Your task to perform on an android device: delete location history Image 0: 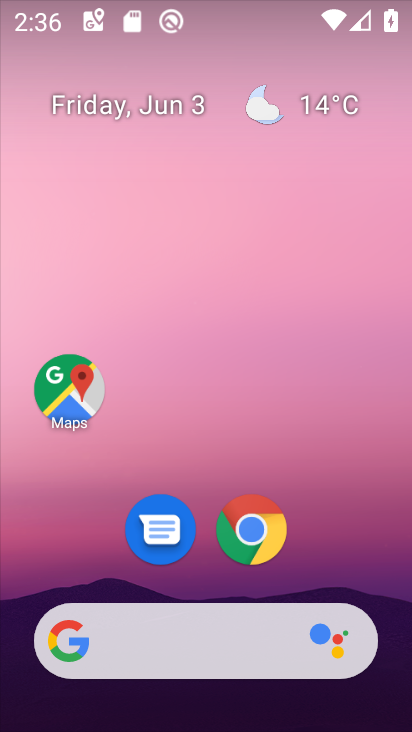
Step 0: drag from (312, 694) to (217, 139)
Your task to perform on an android device: delete location history Image 1: 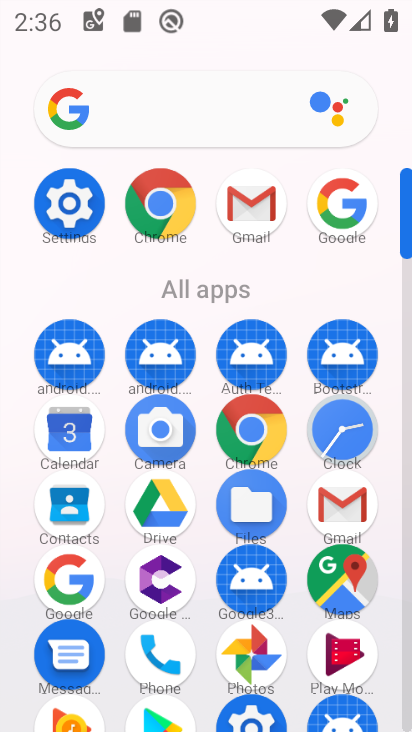
Step 1: click (74, 211)
Your task to perform on an android device: delete location history Image 2: 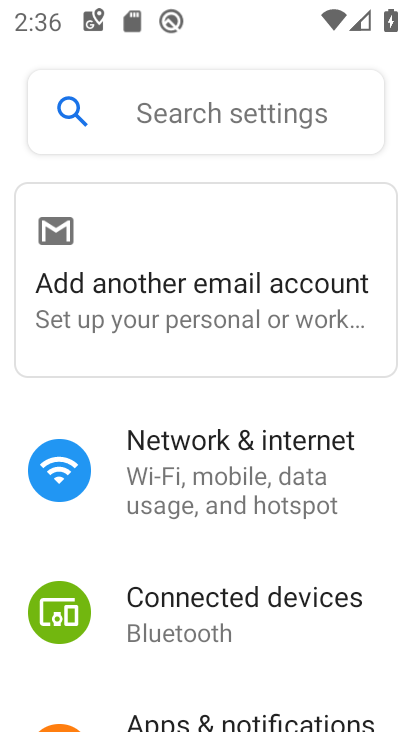
Step 2: drag from (226, 566) to (194, 233)
Your task to perform on an android device: delete location history Image 3: 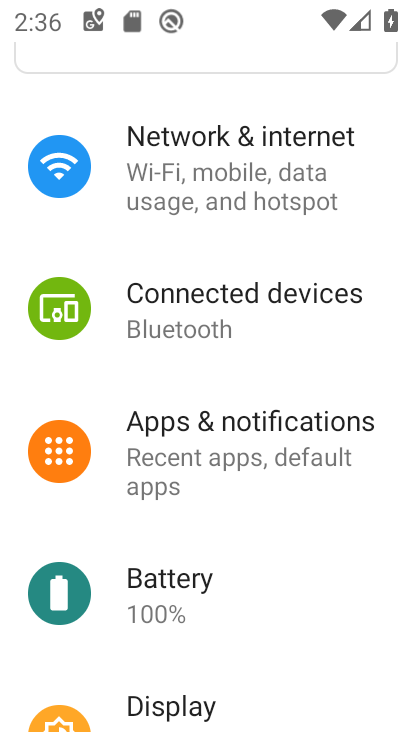
Step 3: drag from (213, 422) to (207, 246)
Your task to perform on an android device: delete location history Image 4: 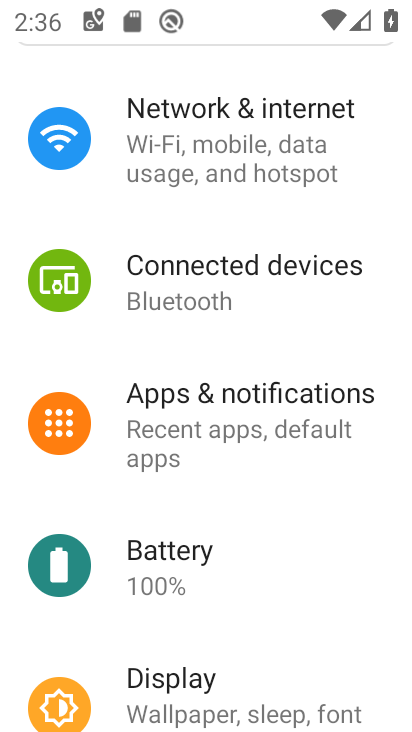
Step 4: drag from (206, 568) to (208, 256)
Your task to perform on an android device: delete location history Image 5: 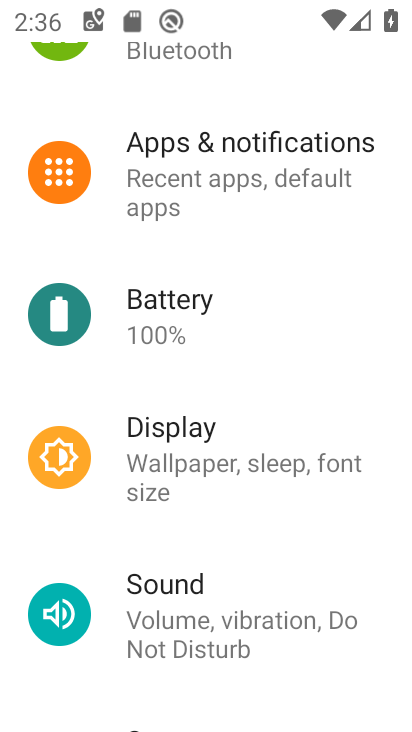
Step 5: drag from (207, 514) to (212, 257)
Your task to perform on an android device: delete location history Image 6: 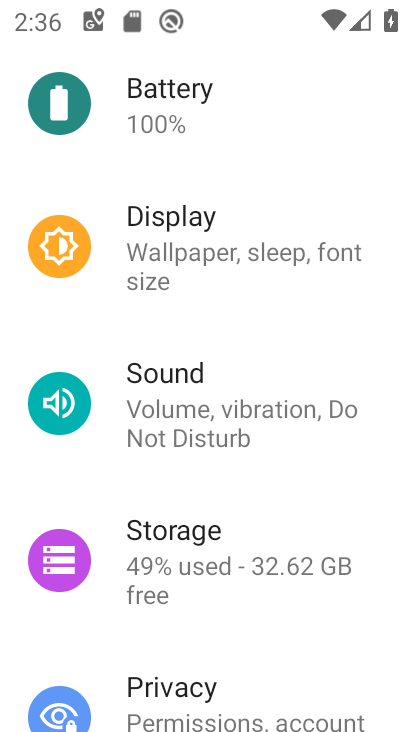
Step 6: drag from (151, 568) to (170, 267)
Your task to perform on an android device: delete location history Image 7: 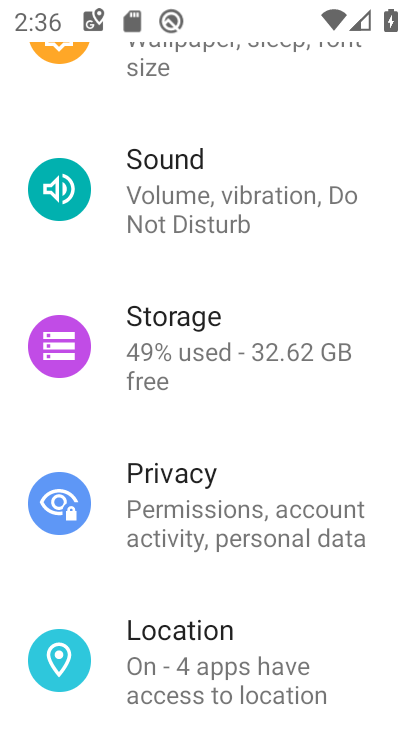
Step 7: drag from (213, 266) to (184, 170)
Your task to perform on an android device: delete location history Image 8: 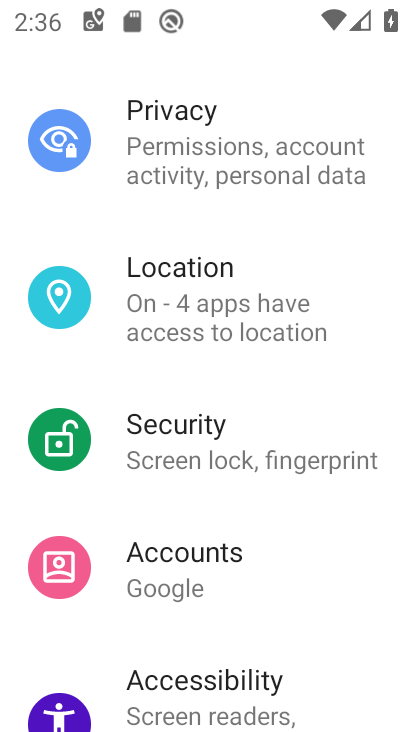
Step 8: drag from (160, 546) to (184, 269)
Your task to perform on an android device: delete location history Image 9: 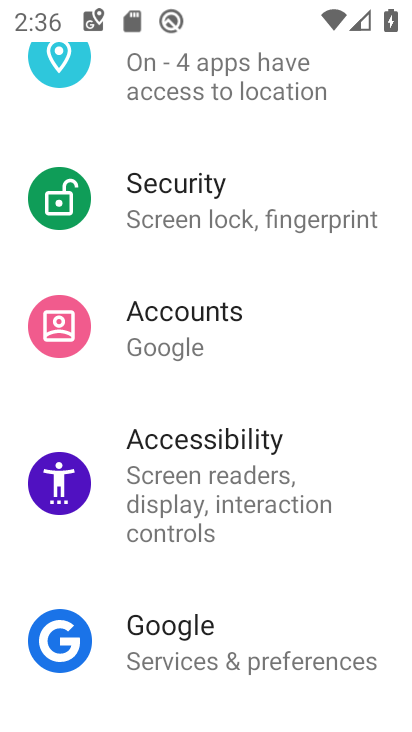
Step 9: drag from (184, 430) to (201, 134)
Your task to perform on an android device: delete location history Image 10: 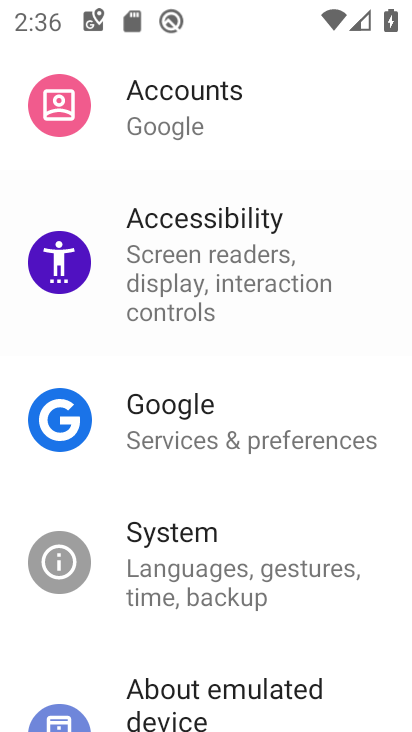
Step 10: drag from (228, 465) to (148, 184)
Your task to perform on an android device: delete location history Image 11: 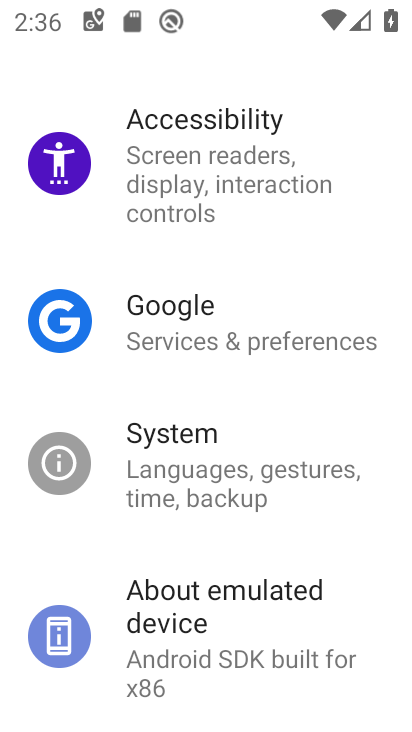
Step 11: drag from (162, 250) to (181, 0)
Your task to perform on an android device: delete location history Image 12: 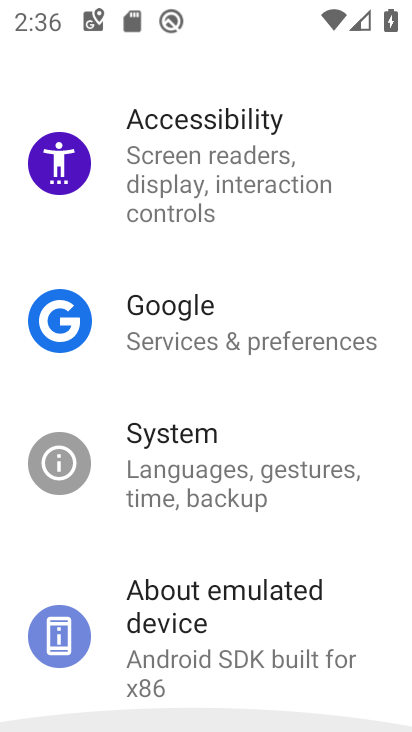
Step 12: drag from (228, 320) to (225, 86)
Your task to perform on an android device: delete location history Image 13: 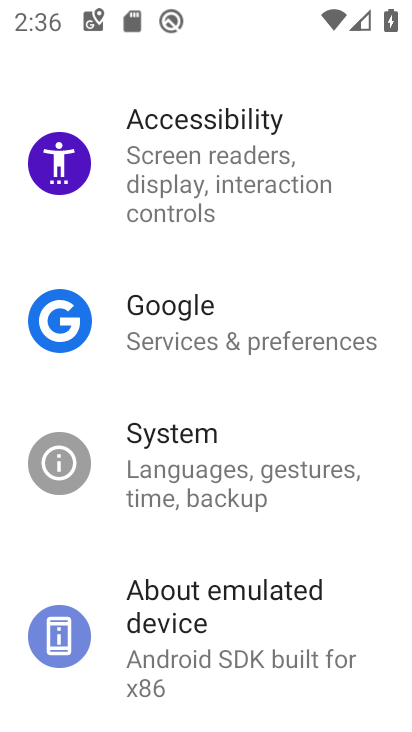
Step 13: drag from (175, 475) to (158, 48)
Your task to perform on an android device: delete location history Image 14: 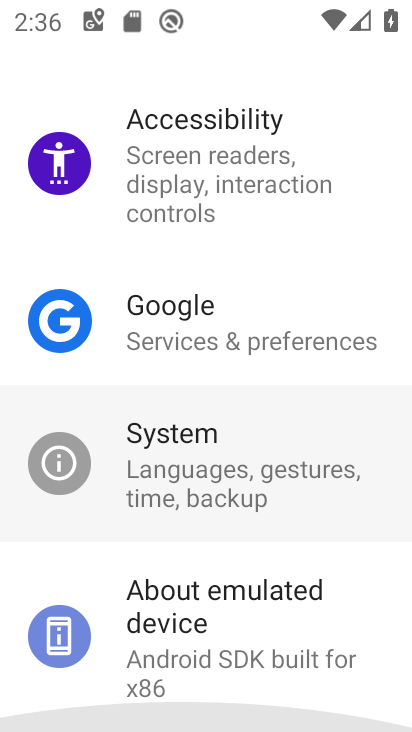
Step 14: drag from (222, 453) to (232, 76)
Your task to perform on an android device: delete location history Image 15: 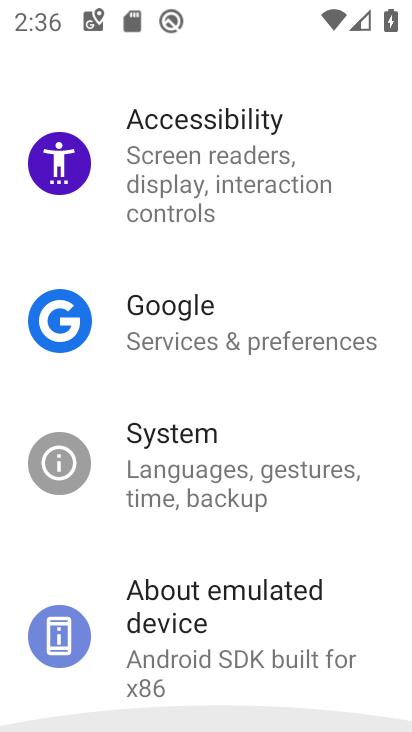
Step 15: drag from (273, 445) to (306, 160)
Your task to perform on an android device: delete location history Image 16: 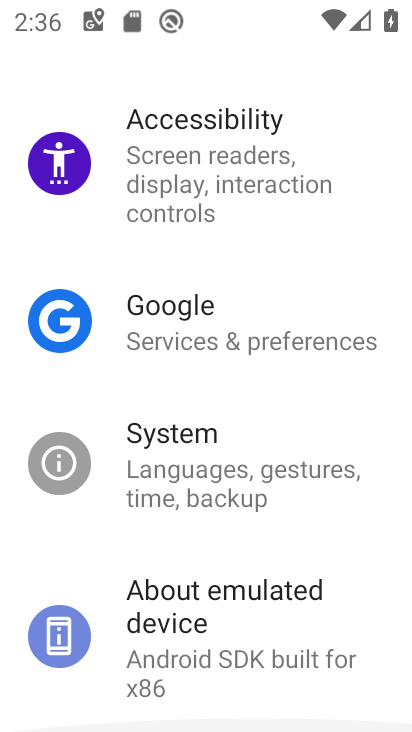
Step 16: drag from (296, 548) to (294, 127)
Your task to perform on an android device: delete location history Image 17: 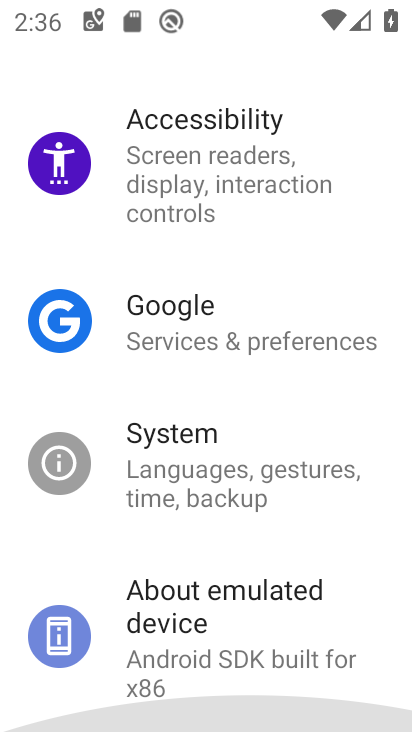
Step 17: drag from (263, 515) to (263, 227)
Your task to perform on an android device: delete location history Image 18: 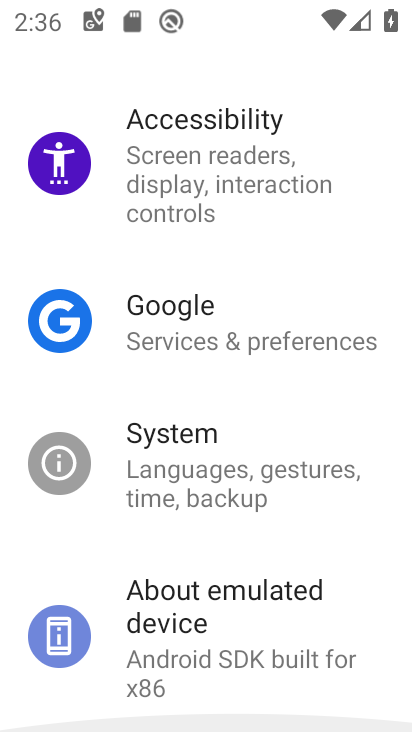
Step 18: drag from (263, 384) to (251, 597)
Your task to perform on an android device: delete location history Image 19: 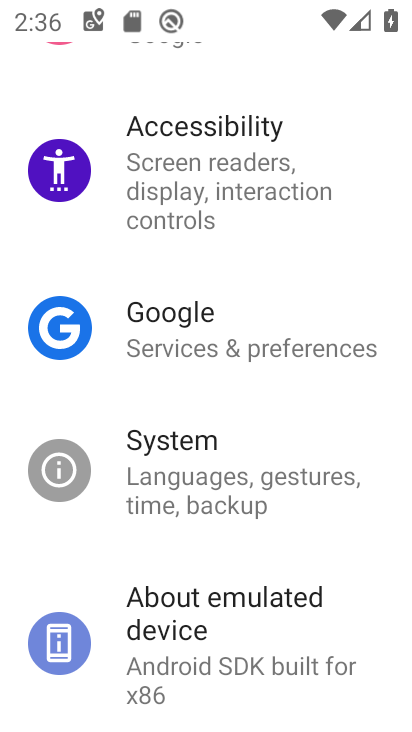
Step 19: drag from (207, 311) to (203, 536)
Your task to perform on an android device: delete location history Image 20: 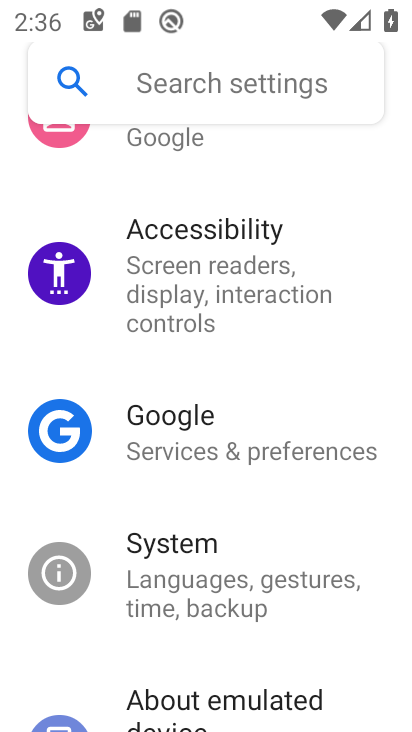
Step 20: drag from (136, 300) to (173, 490)
Your task to perform on an android device: delete location history Image 21: 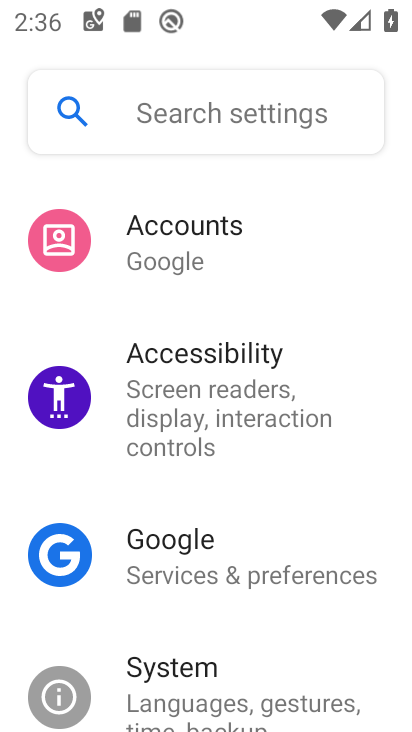
Step 21: drag from (151, 334) to (199, 487)
Your task to perform on an android device: delete location history Image 22: 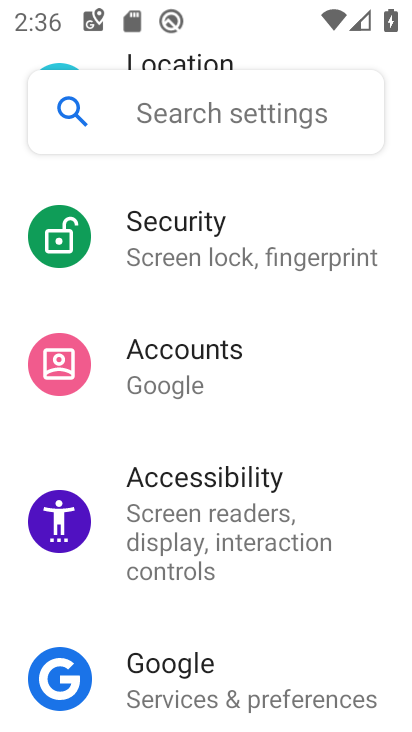
Step 22: drag from (184, 306) to (199, 458)
Your task to perform on an android device: delete location history Image 23: 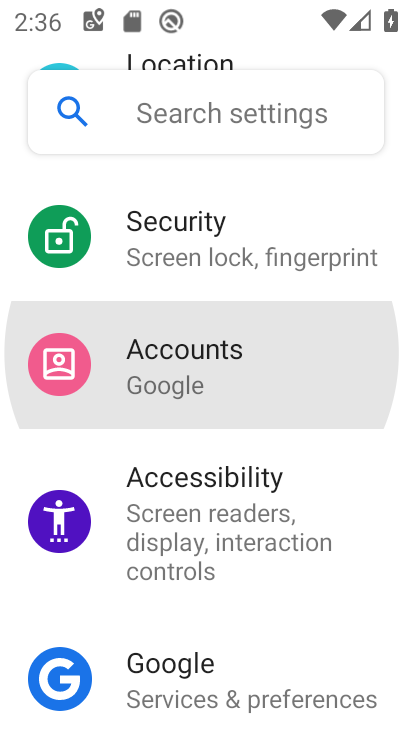
Step 23: drag from (182, 342) to (196, 599)
Your task to perform on an android device: delete location history Image 24: 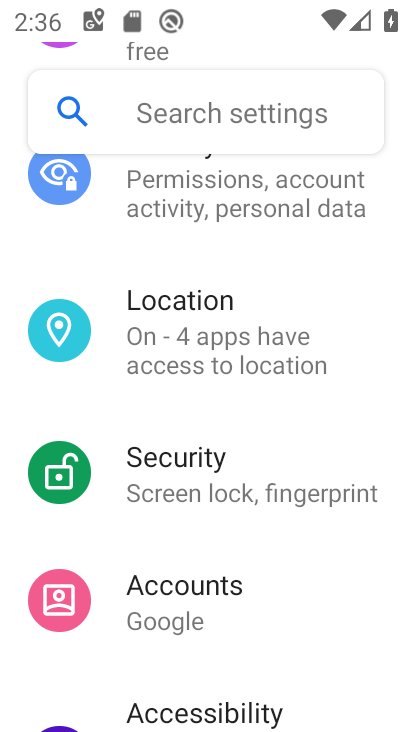
Step 24: click (192, 335)
Your task to perform on an android device: delete location history Image 25: 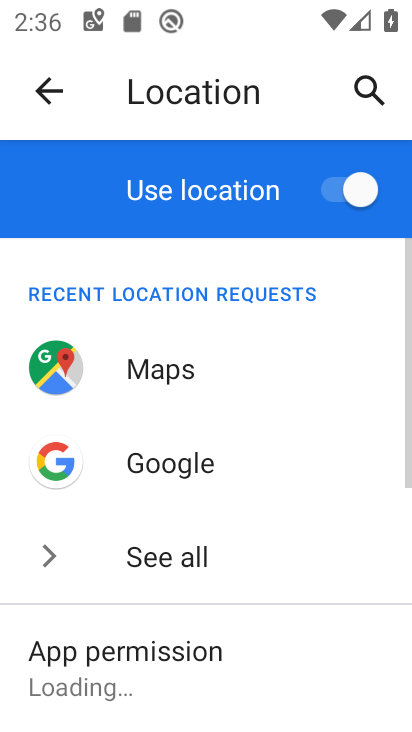
Step 25: drag from (207, 622) to (230, 247)
Your task to perform on an android device: delete location history Image 26: 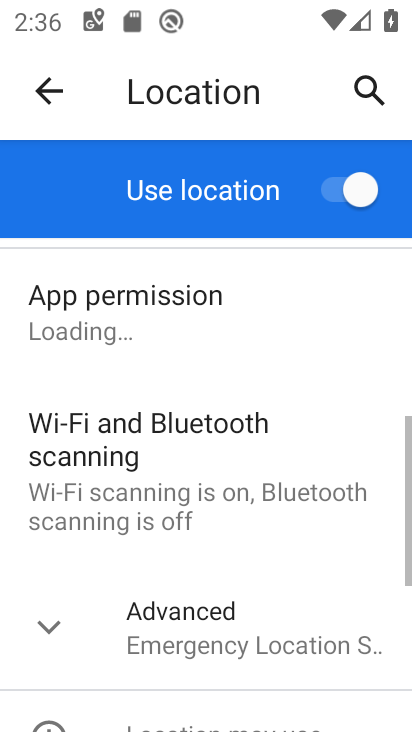
Step 26: drag from (251, 460) to (251, 206)
Your task to perform on an android device: delete location history Image 27: 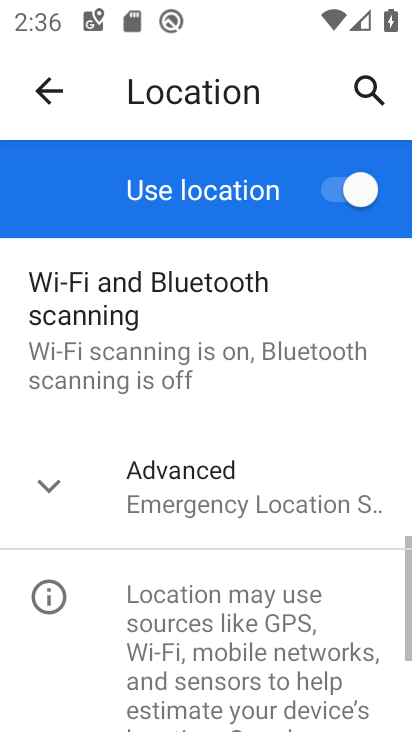
Step 27: drag from (255, 473) to (248, 225)
Your task to perform on an android device: delete location history Image 28: 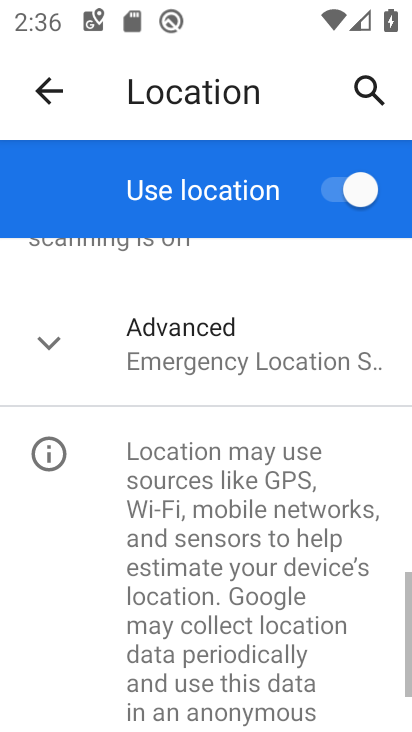
Step 28: click (200, 352)
Your task to perform on an android device: delete location history Image 29: 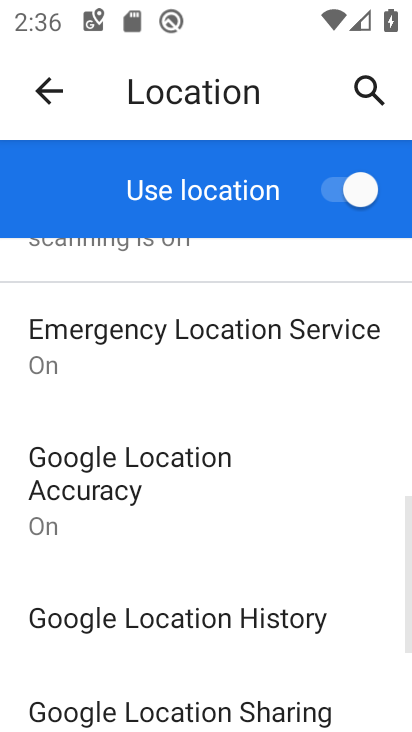
Step 29: drag from (194, 561) to (175, 331)
Your task to perform on an android device: delete location history Image 30: 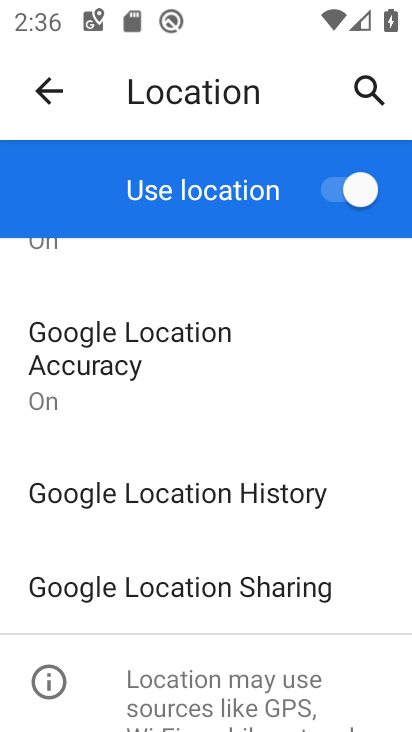
Step 30: drag from (210, 553) to (211, 349)
Your task to perform on an android device: delete location history Image 31: 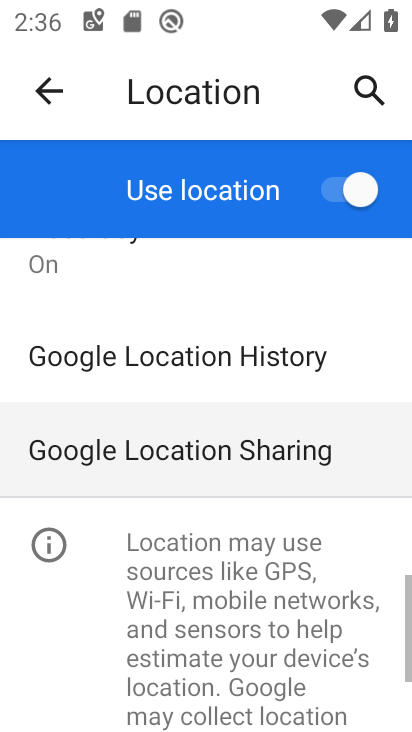
Step 31: drag from (254, 498) to (261, 284)
Your task to perform on an android device: delete location history Image 32: 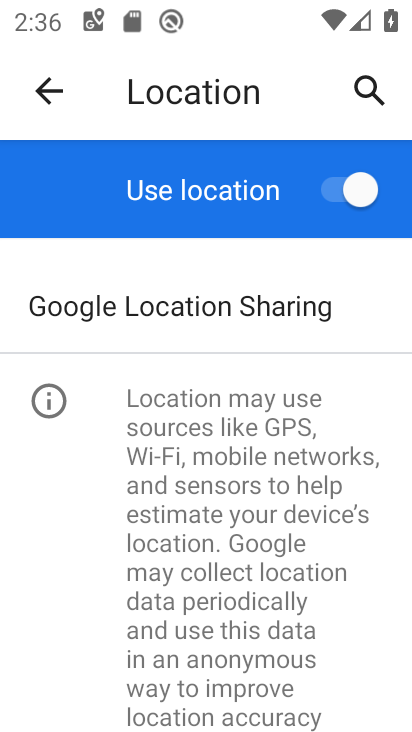
Step 32: drag from (223, 316) to (272, 568)
Your task to perform on an android device: delete location history Image 33: 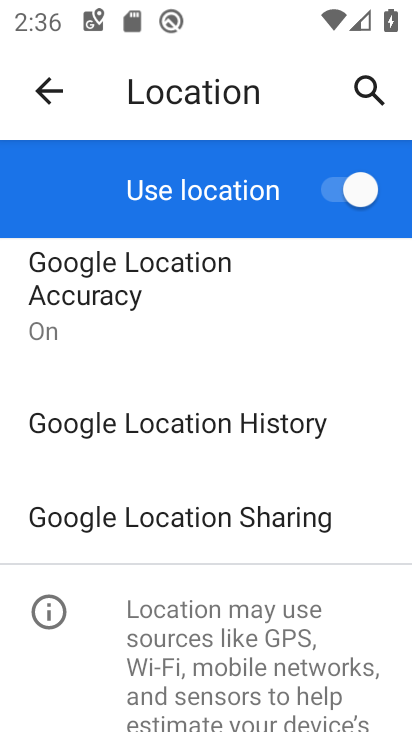
Step 33: click (247, 422)
Your task to perform on an android device: delete location history Image 34: 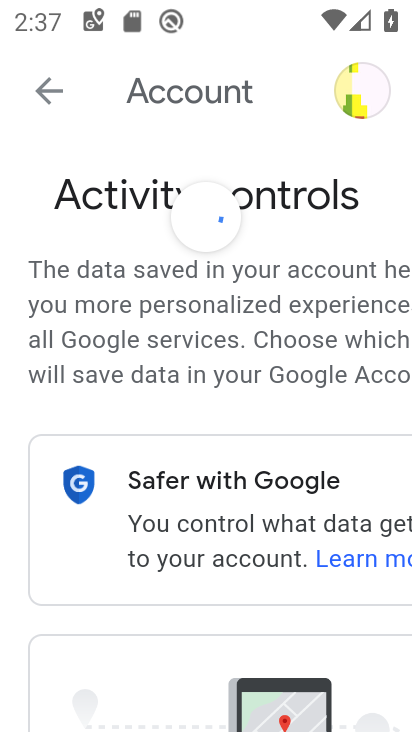
Step 34: drag from (235, 493) to (220, 369)
Your task to perform on an android device: delete location history Image 35: 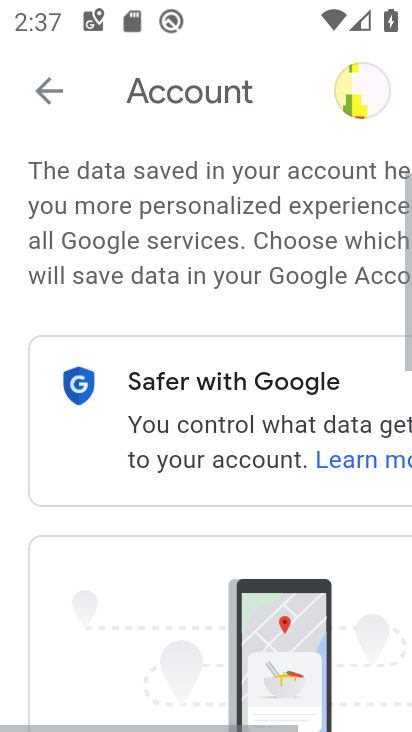
Step 35: drag from (281, 618) to (237, 343)
Your task to perform on an android device: delete location history Image 36: 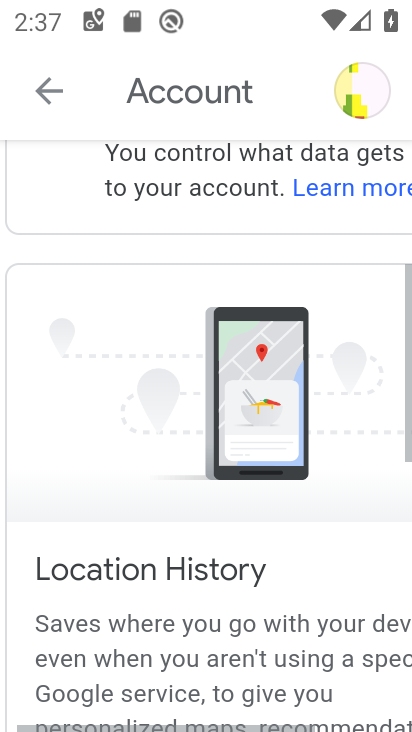
Step 36: drag from (267, 384) to (267, 136)
Your task to perform on an android device: delete location history Image 37: 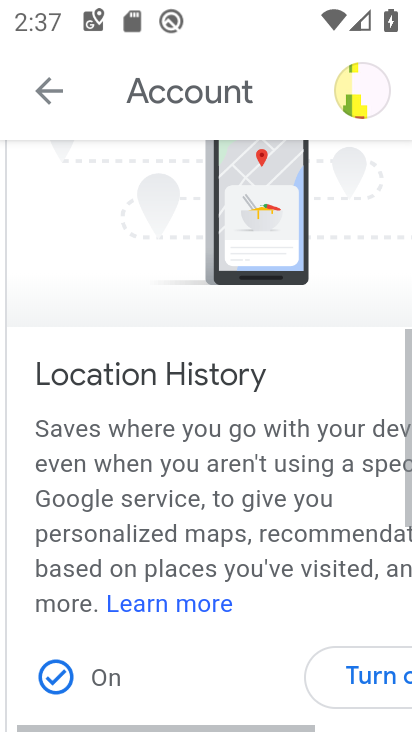
Step 37: drag from (296, 462) to (221, 149)
Your task to perform on an android device: delete location history Image 38: 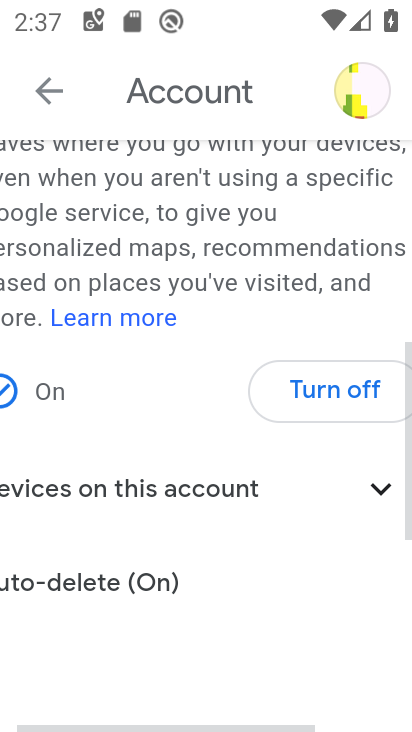
Step 38: drag from (226, 423) to (214, 201)
Your task to perform on an android device: delete location history Image 39: 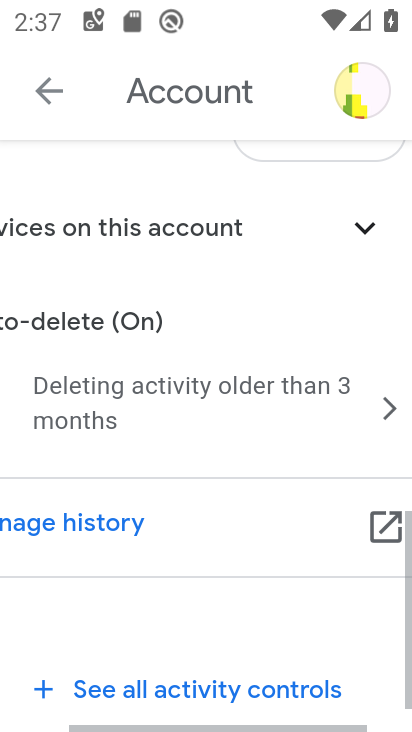
Step 39: drag from (261, 397) to (267, 164)
Your task to perform on an android device: delete location history Image 40: 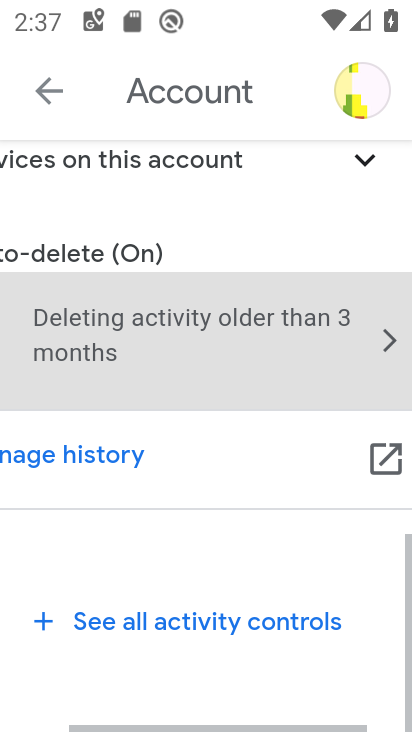
Step 40: drag from (270, 410) to (270, 272)
Your task to perform on an android device: delete location history Image 41: 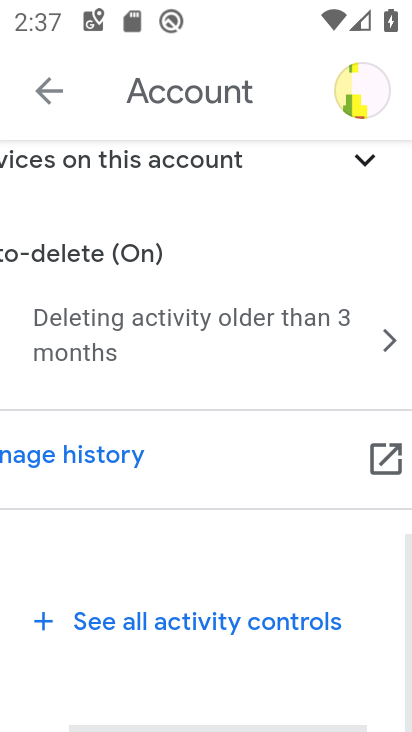
Step 41: drag from (290, 431) to (289, 271)
Your task to perform on an android device: delete location history Image 42: 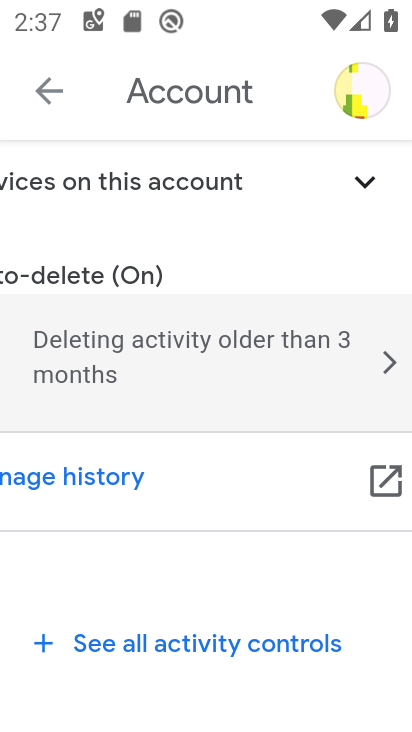
Step 42: drag from (269, 452) to (82, 461)
Your task to perform on an android device: delete location history Image 43: 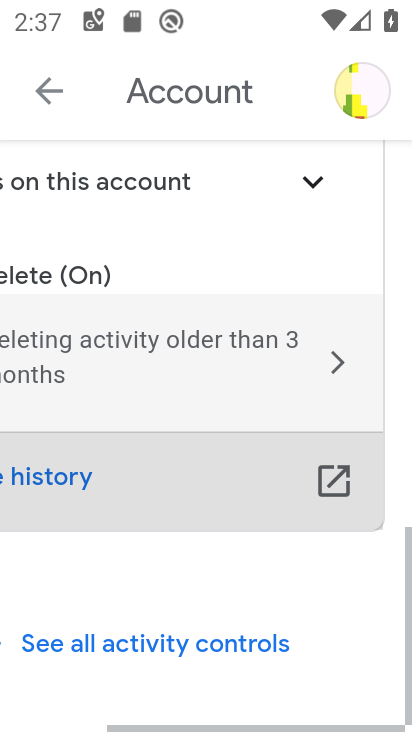
Step 43: drag from (248, 470) to (141, 553)
Your task to perform on an android device: delete location history Image 44: 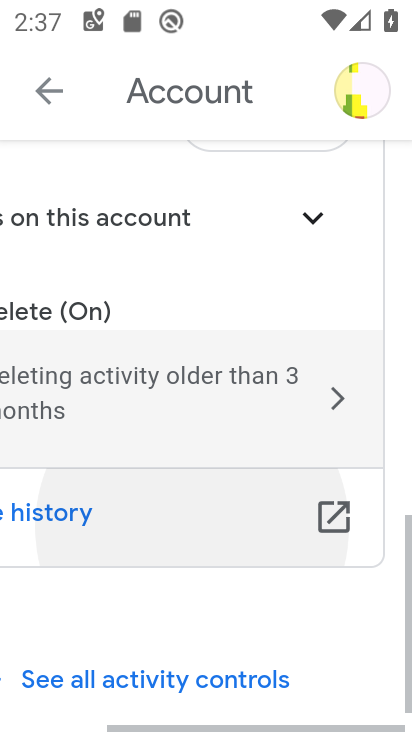
Step 44: drag from (137, 527) to (242, 599)
Your task to perform on an android device: delete location history Image 45: 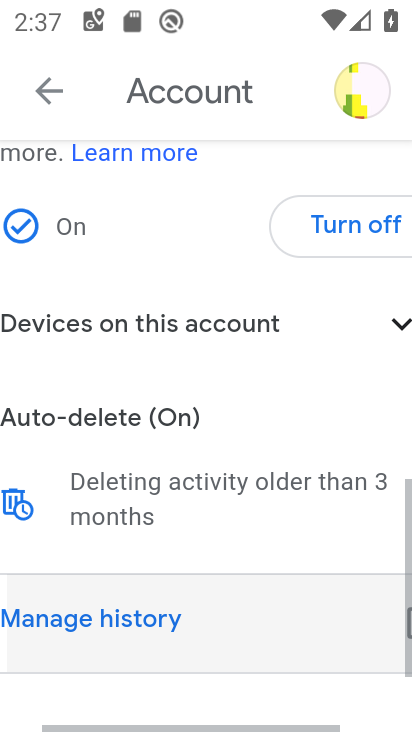
Step 45: drag from (183, 556) to (84, 541)
Your task to perform on an android device: delete location history Image 46: 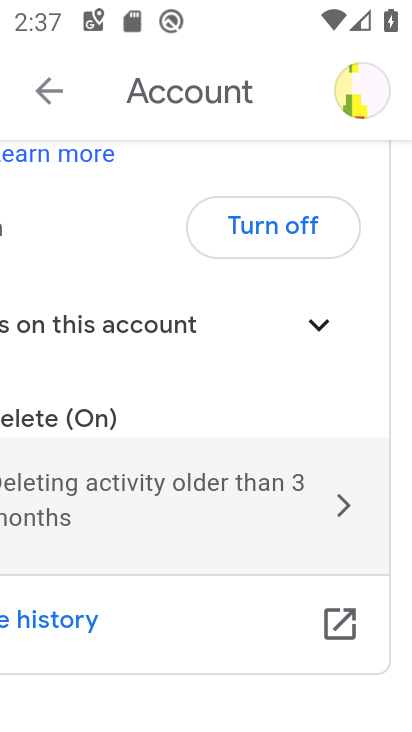
Step 46: click (271, 240)
Your task to perform on an android device: delete location history Image 47: 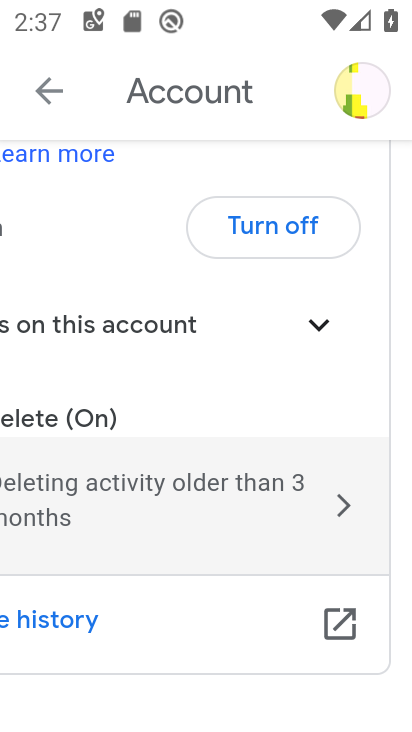
Step 47: click (271, 240)
Your task to perform on an android device: delete location history Image 48: 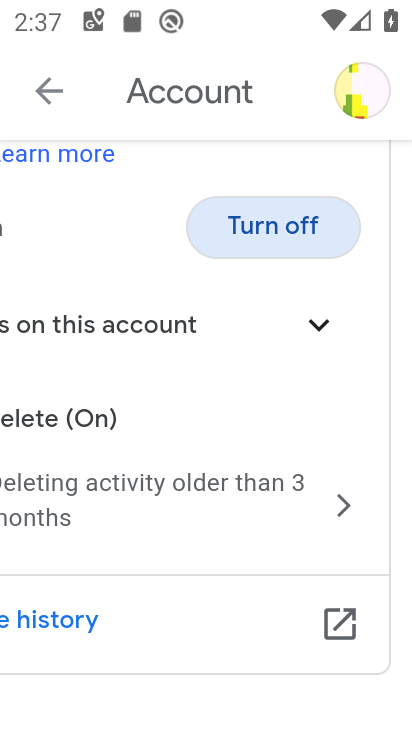
Step 48: click (271, 240)
Your task to perform on an android device: delete location history Image 49: 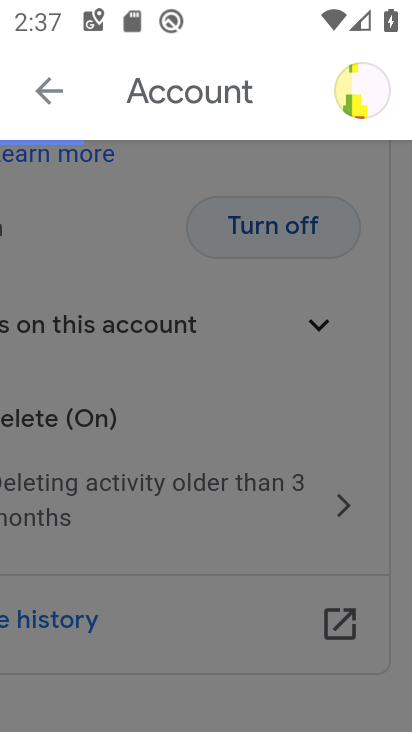
Step 49: click (271, 240)
Your task to perform on an android device: delete location history Image 50: 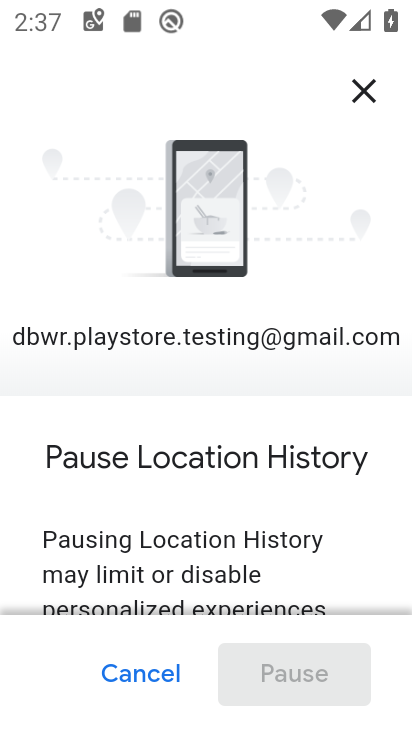
Step 50: click (276, 221)
Your task to perform on an android device: delete location history Image 51: 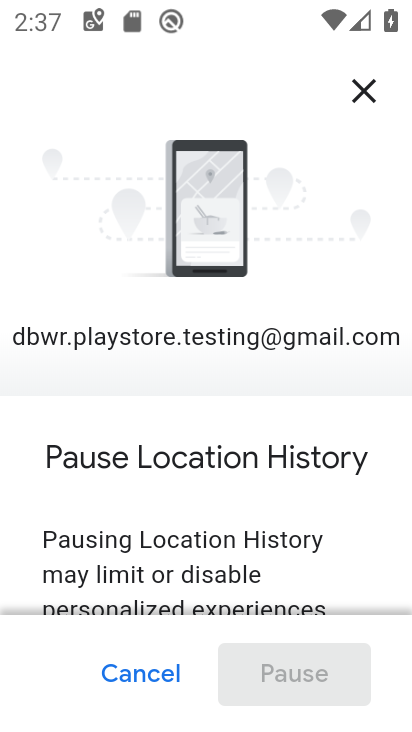
Step 51: task complete